Your task to perform on an android device: turn off notifications settings in the gmail app Image 0: 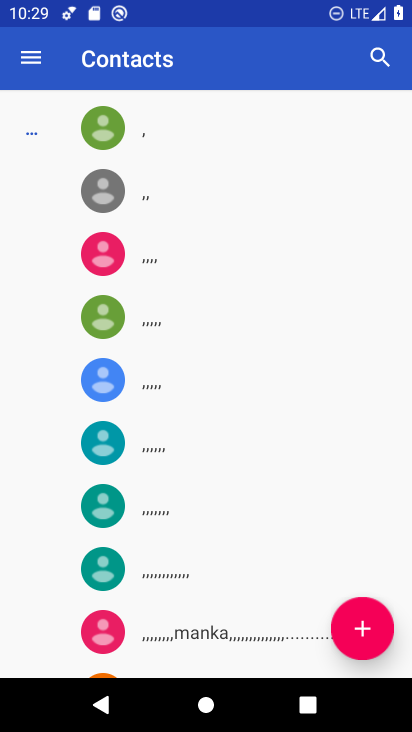
Step 0: press home button
Your task to perform on an android device: turn off notifications settings in the gmail app Image 1: 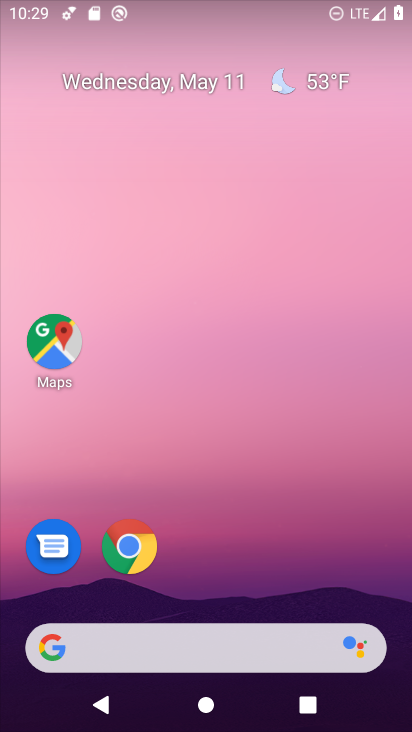
Step 1: drag from (377, 620) to (264, 89)
Your task to perform on an android device: turn off notifications settings in the gmail app Image 2: 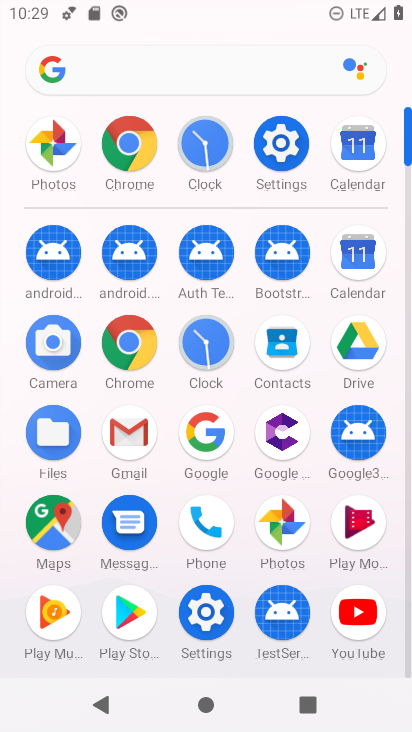
Step 2: click (146, 436)
Your task to perform on an android device: turn off notifications settings in the gmail app Image 3: 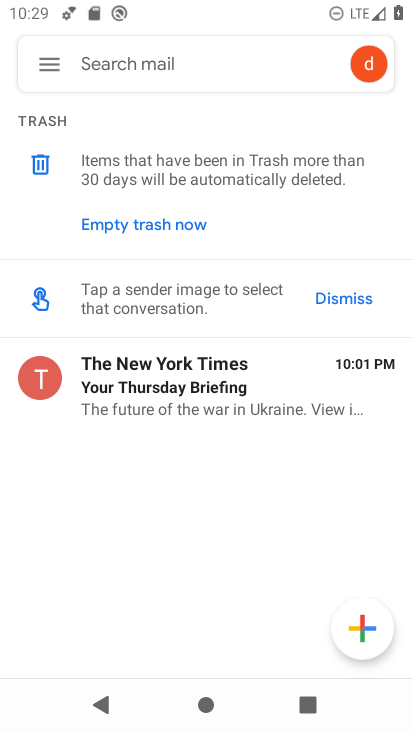
Step 3: click (41, 69)
Your task to perform on an android device: turn off notifications settings in the gmail app Image 4: 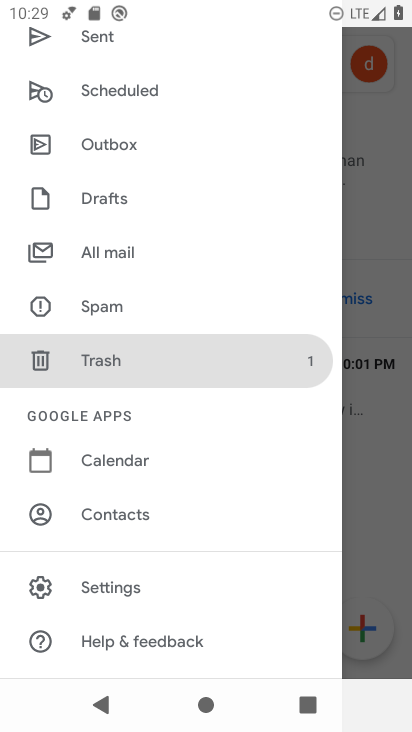
Step 4: click (168, 582)
Your task to perform on an android device: turn off notifications settings in the gmail app Image 5: 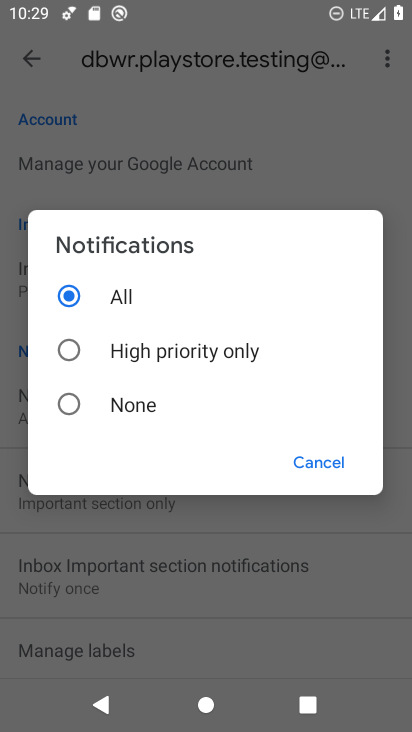
Step 5: click (325, 459)
Your task to perform on an android device: turn off notifications settings in the gmail app Image 6: 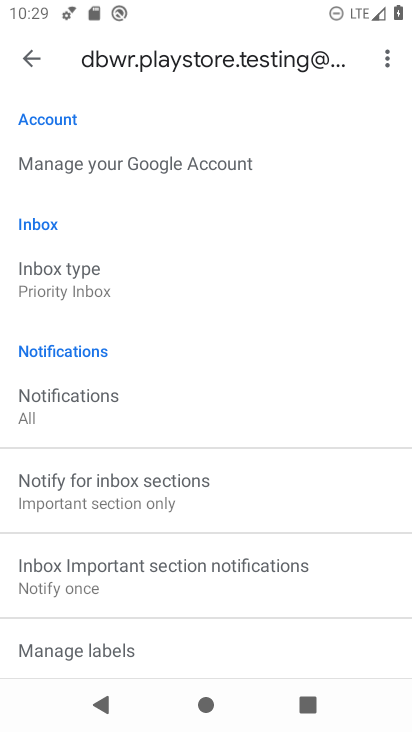
Step 6: click (75, 380)
Your task to perform on an android device: turn off notifications settings in the gmail app Image 7: 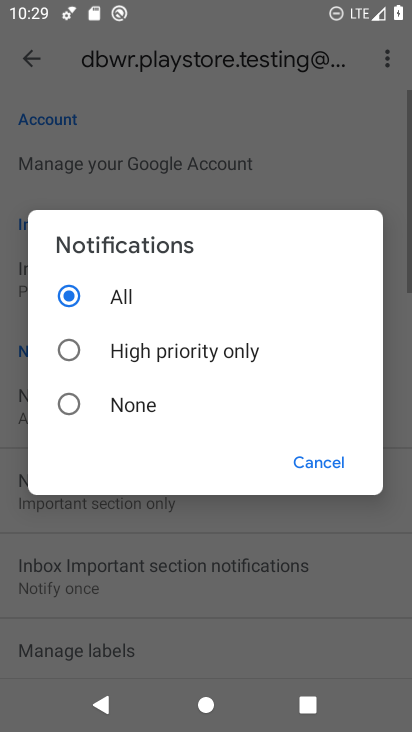
Step 7: click (108, 428)
Your task to perform on an android device: turn off notifications settings in the gmail app Image 8: 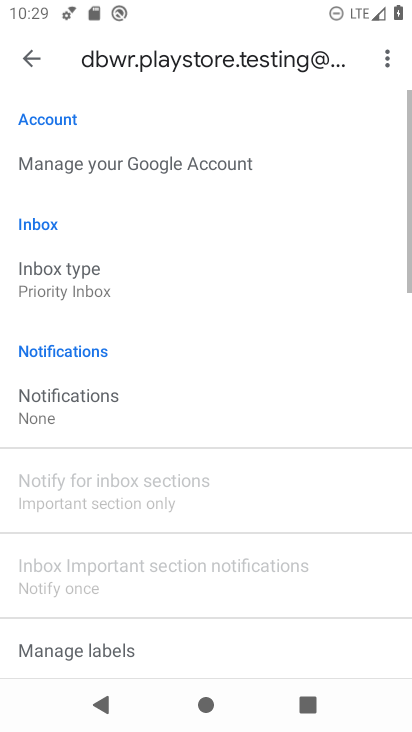
Step 8: task complete